Your task to perform on an android device: Turn on the flashlight Image 0: 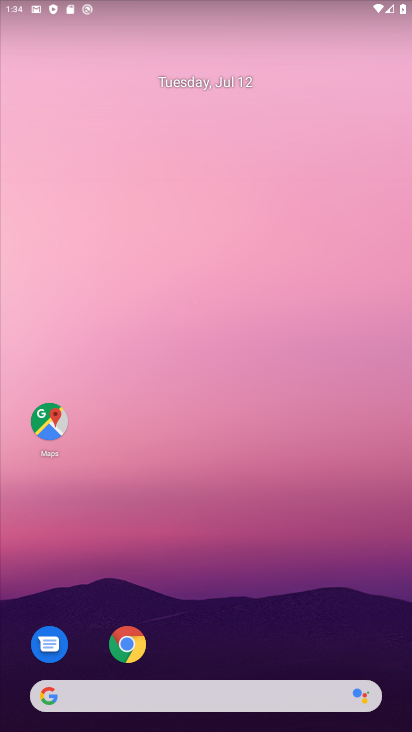
Step 0: drag from (154, 668) to (267, 60)
Your task to perform on an android device: Turn on the flashlight Image 1: 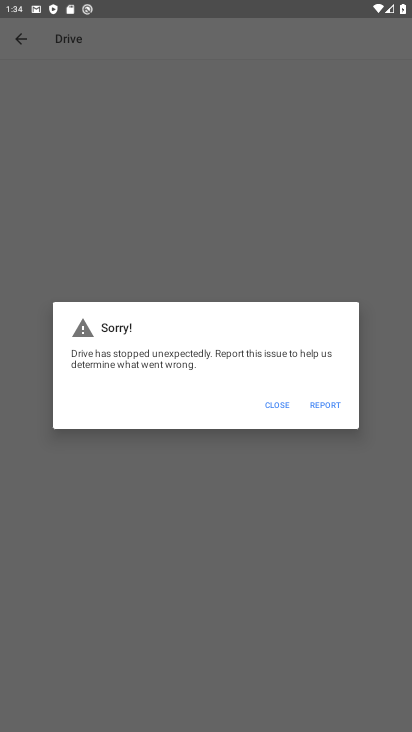
Step 1: click (268, 412)
Your task to perform on an android device: Turn on the flashlight Image 2: 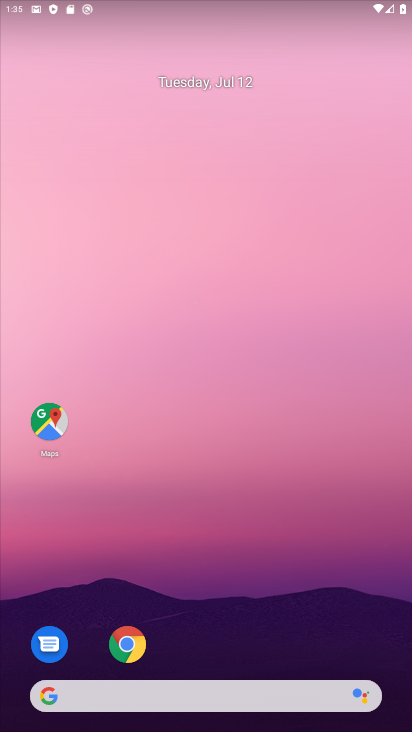
Step 2: drag from (210, 660) to (281, 47)
Your task to perform on an android device: Turn on the flashlight Image 3: 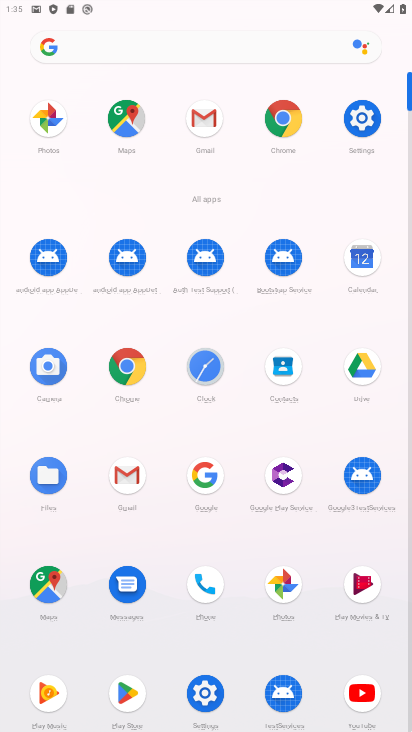
Step 3: click (381, 113)
Your task to perform on an android device: Turn on the flashlight Image 4: 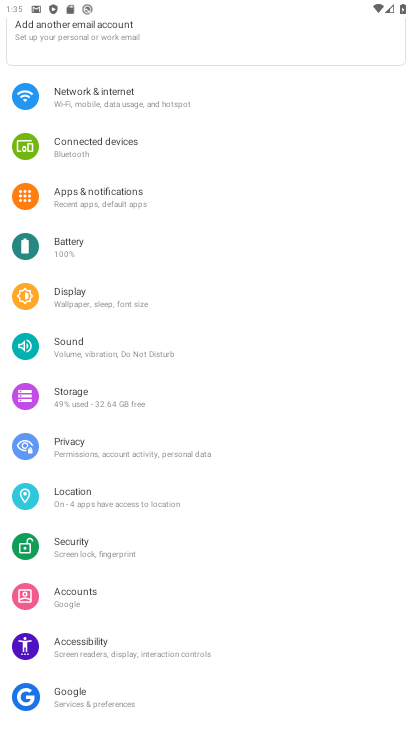
Step 4: drag from (216, 274) to (174, 717)
Your task to perform on an android device: Turn on the flashlight Image 5: 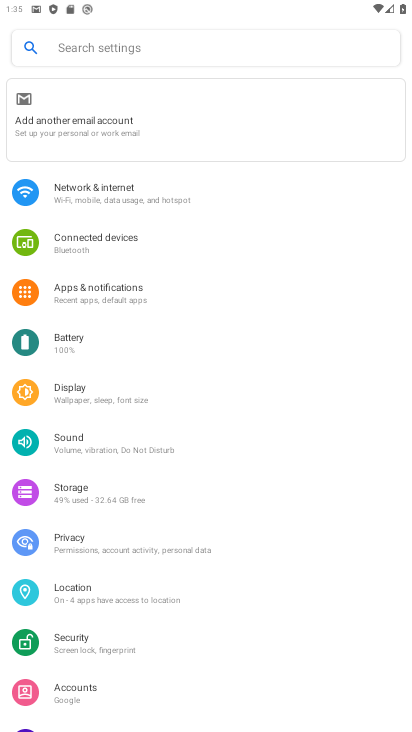
Step 5: click (118, 51)
Your task to perform on an android device: Turn on the flashlight Image 6: 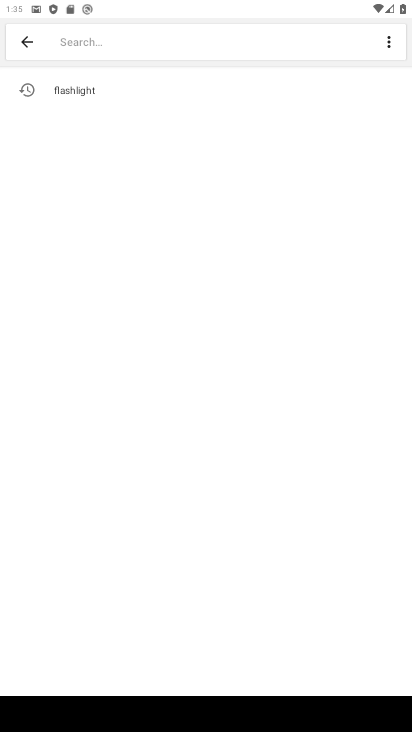
Step 6: type "flashl"
Your task to perform on an android device: Turn on the flashlight Image 7: 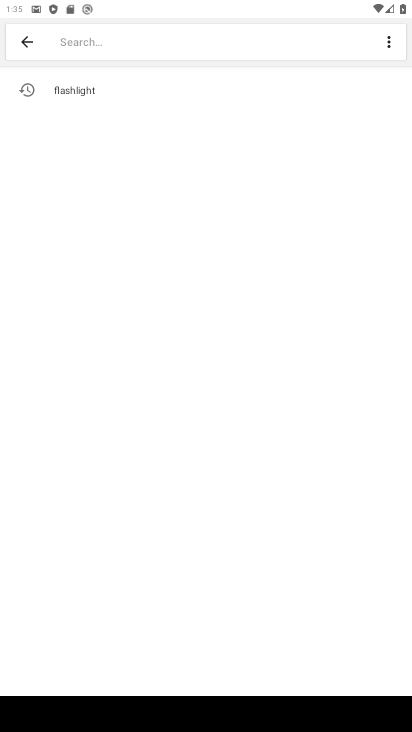
Step 7: click (72, 85)
Your task to perform on an android device: Turn on the flashlight Image 8: 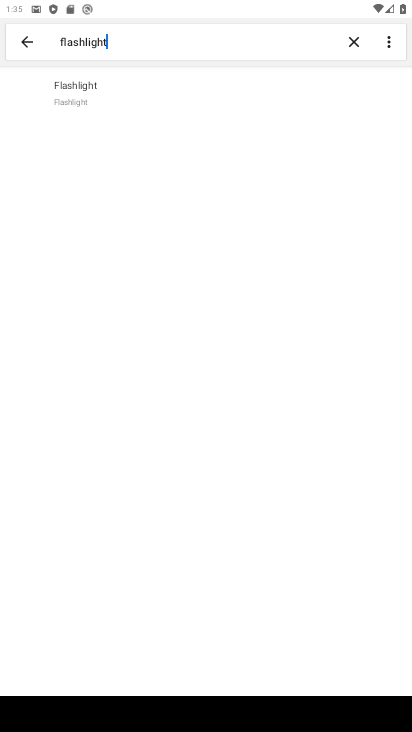
Step 8: task complete